Your task to perform on an android device: Open my contact list Image 0: 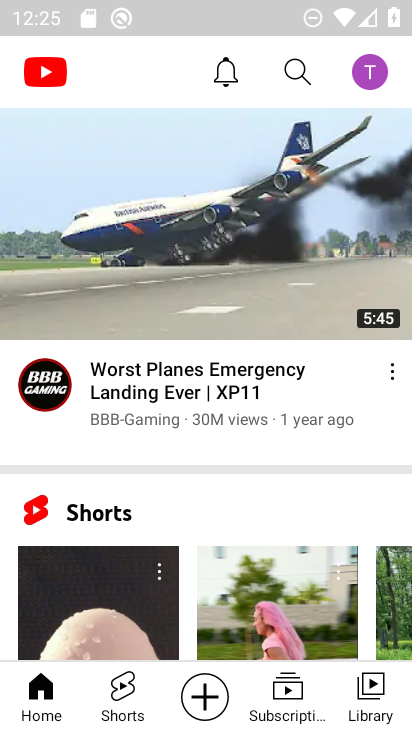
Step 0: press home button
Your task to perform on an android device: Open my contact list Image 1: 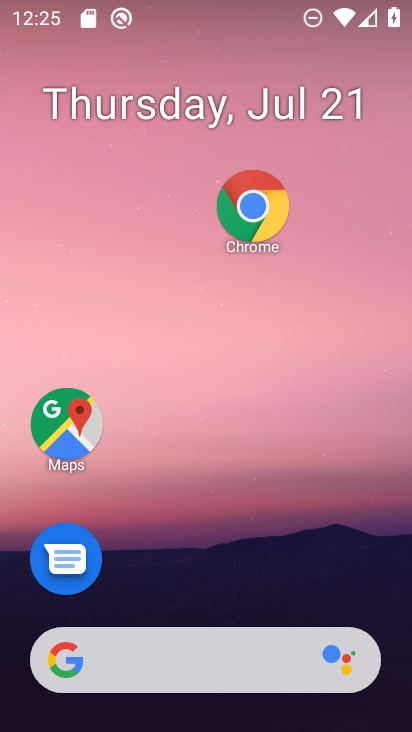
Step 1: drag from (168, 595) to (235, 29)
Your task to perform on an android device: Open my contact list Image 2: 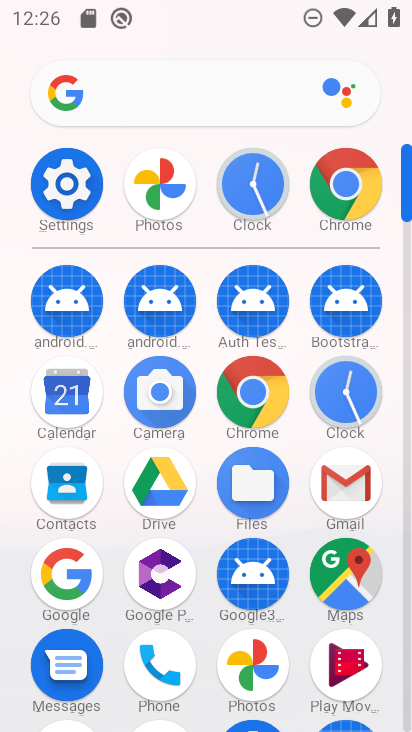
Step 2: click (92, 491)
Your task to perform on an android device: Open my contact list Image 3: 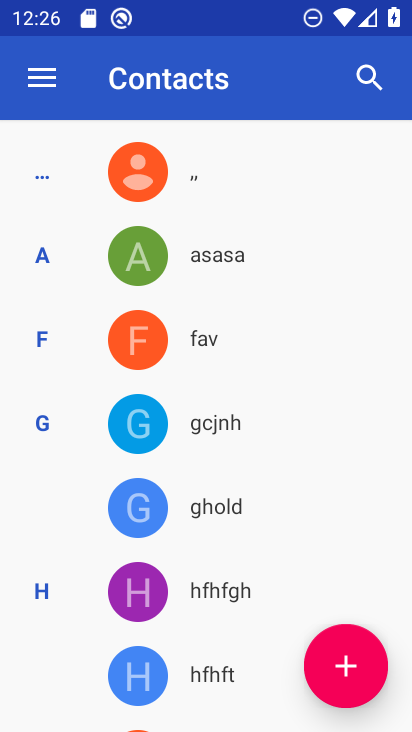
Step 3: task complete